Your task to perform on an android device: turn on the 24-hour format for clock Image 0: 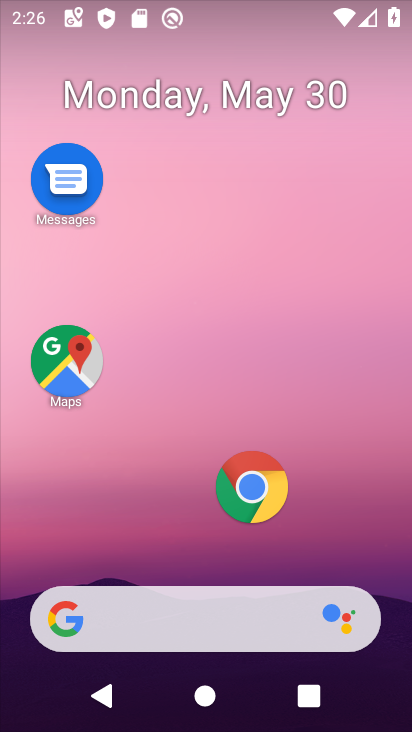
Step 0: drag from (201, 548) to (231, 16)
Your task to perform on an android device: turn on the 24-hour format for clock Image 1: 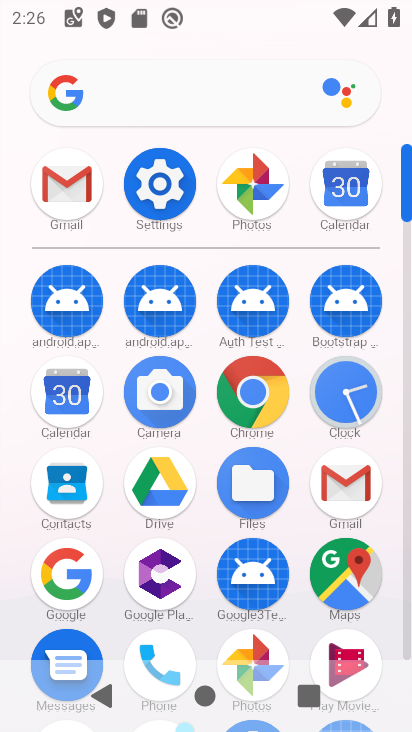
Step 1: click (339, 397)
Your task to perform on an android device: turn on the 24-hour format for clock Image 2: 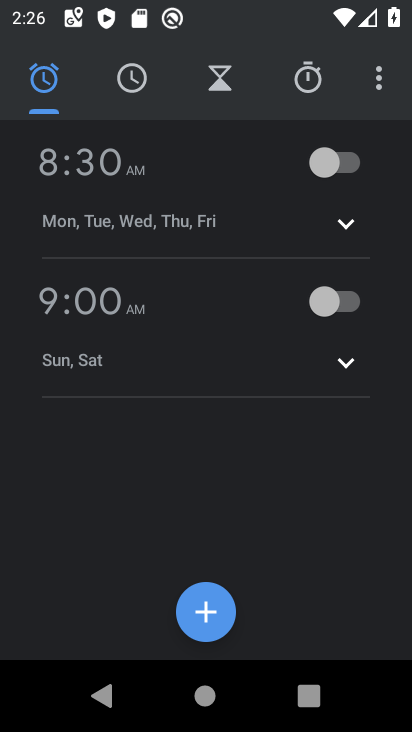
Step 2: click (376, 90)
Your task to perform on an android device: turn on the 24-hour format for clock Image 3: 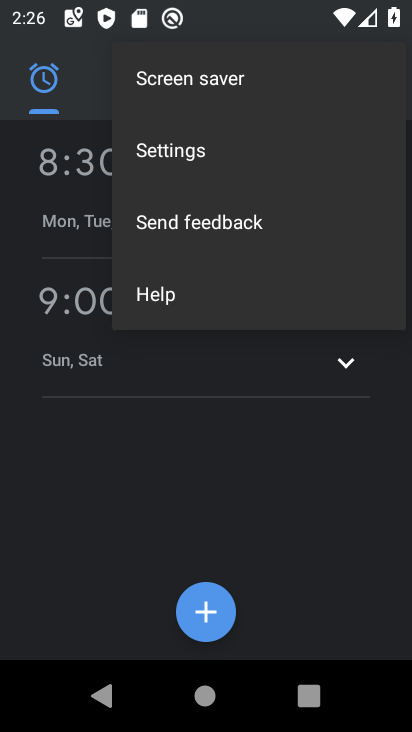
Step 3: click (199, 155)
Your task to perform on an android device: turn on the 24-hour format for clock Image 4: 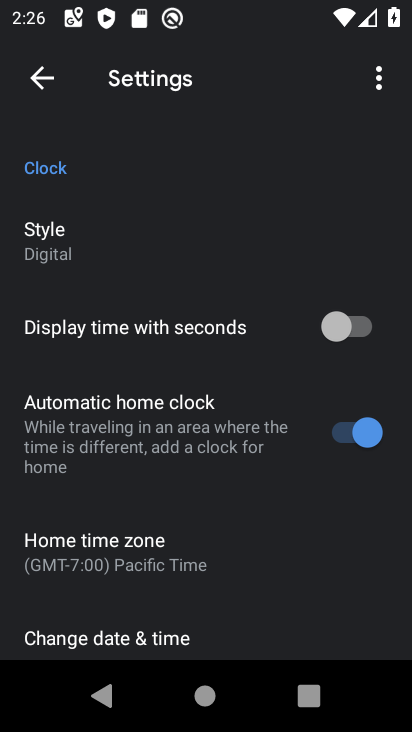
Step 4: click (151, 631)
Your task to perform on an android device: turn on the 24-hour format for clock Image 5: 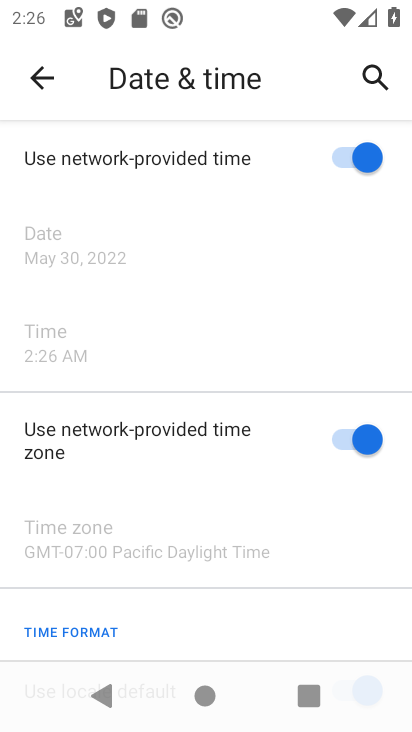
Step 5: drag from (234, 482) to (227, 268)
Your task to perform on an android device: turn on the 24-hour format for clock Image 6: 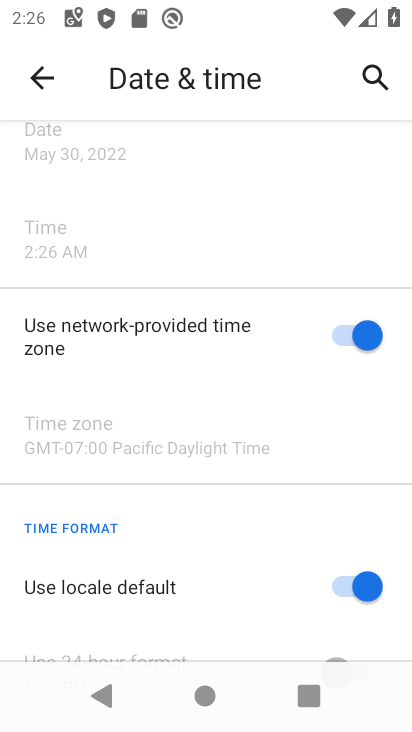
Step 6: drag from (225, 600) to (225, 210)
Your task to perform on an android device: turn on the 24-hour format for clock Image 7: 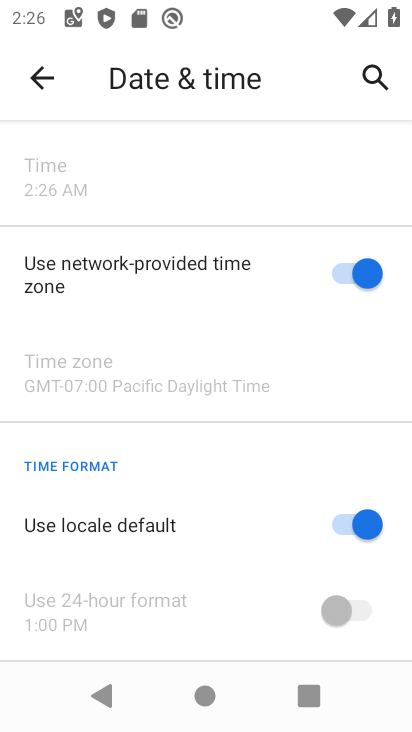
Step 7: drag from (230, 563) to (220, 185)
Your task to perform on an android device: turn on the 24-hour format for clock Image 8: 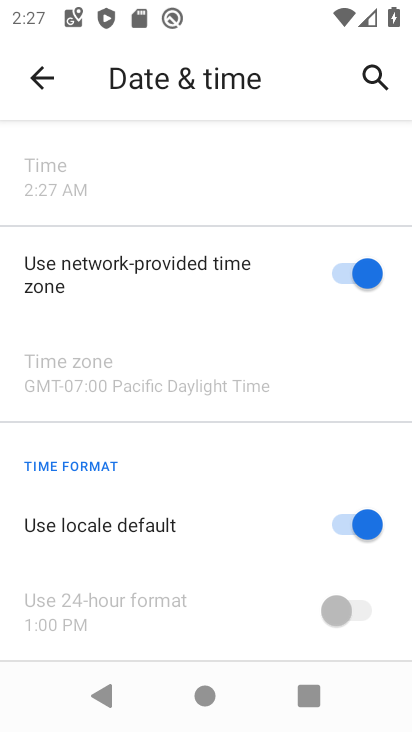
Step 8: click (325, 526)
Your task to perform on an android device: turn on the 24-hour format for clock Image 9: 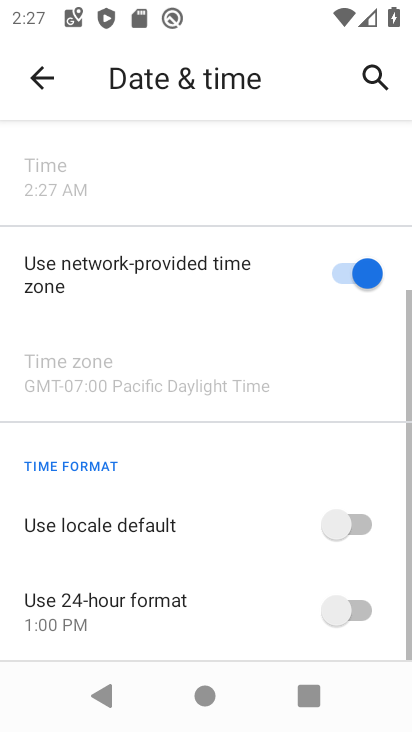
Step 9: click (367, 605)
Your task to perform on an android device: turn on the 24-hour format for clock Image 10: 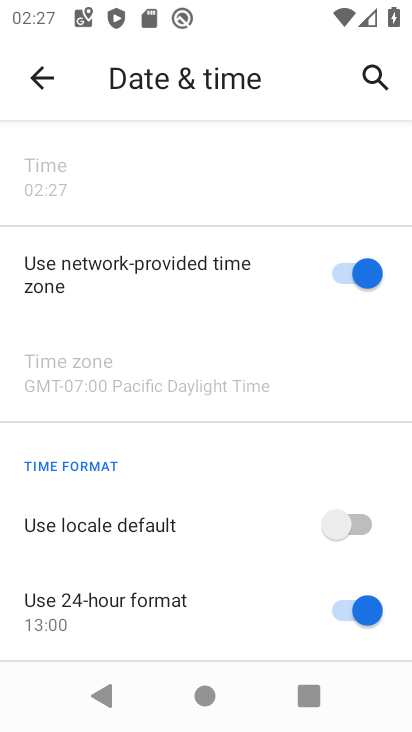
Step 10: task complete